Your task to perform on an android device: Go to notification settings Image 0: 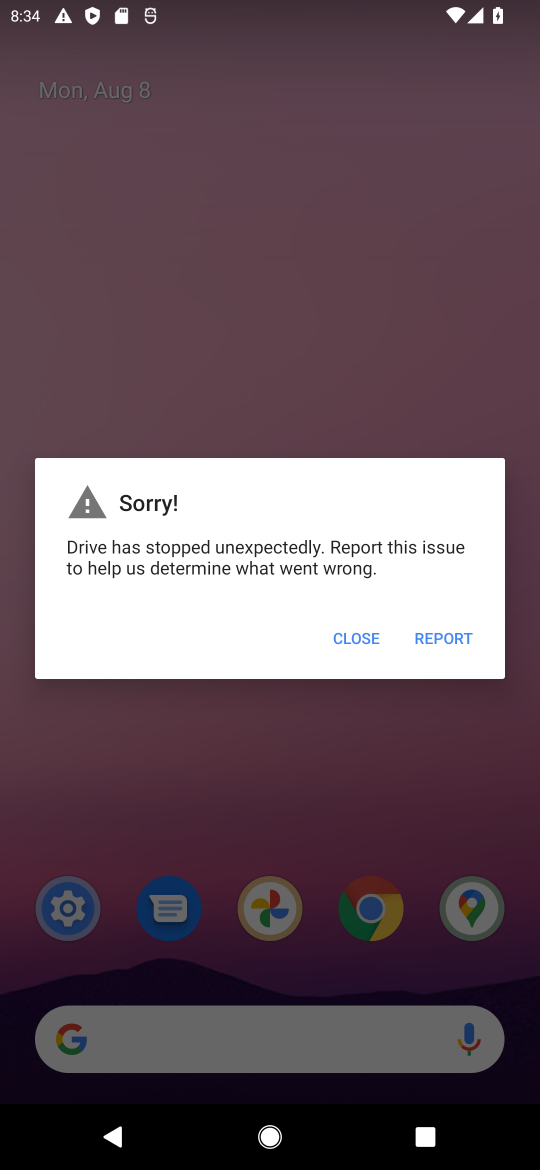
Step 0: click (344, 640)
Your task to perform on an android device: Go to notification settings Image 1: 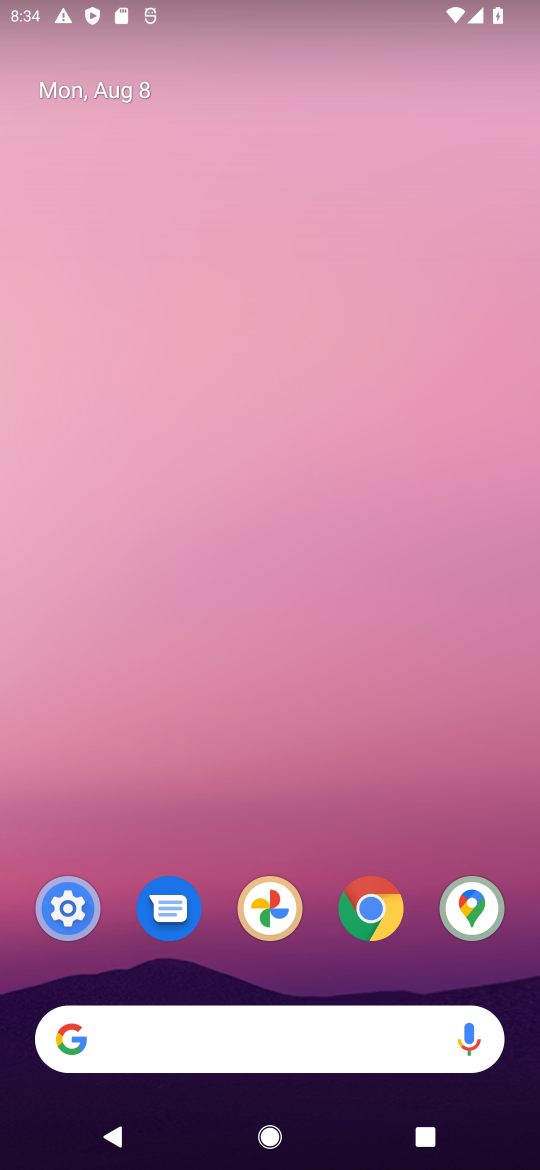
Step 1: click (85, 925)
Your task to perform on an android device: Go to notification settings Image 2: 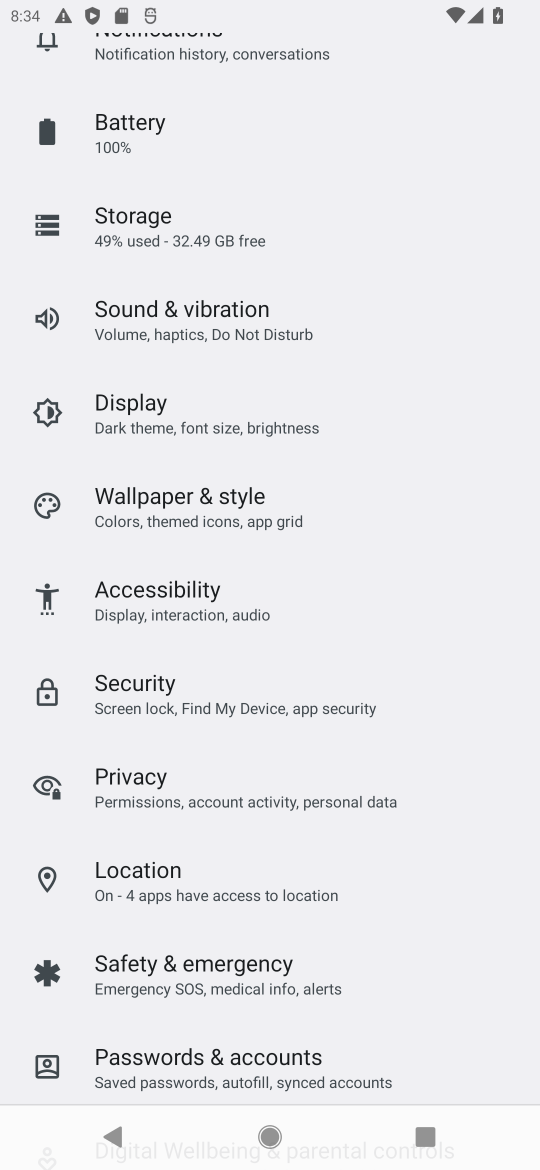
Step 2: drag from (228, 152) to (291, 638)
Your task to perform on an android device: Go to notification settings Image 3: 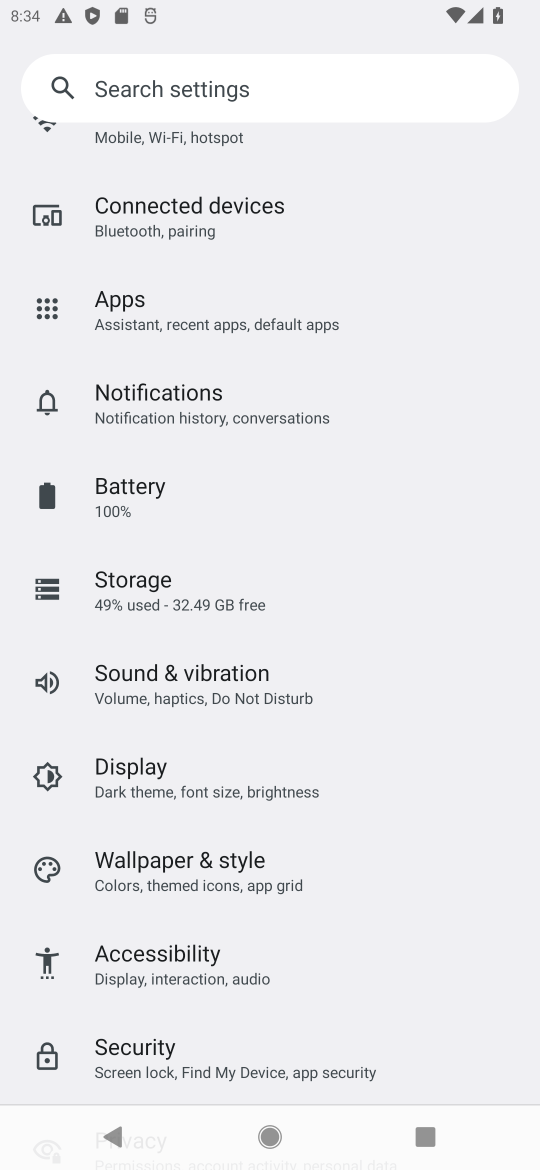
Step 3: click (162, 440)
Your task to perform on an android device: Go to notification settings Image 4: 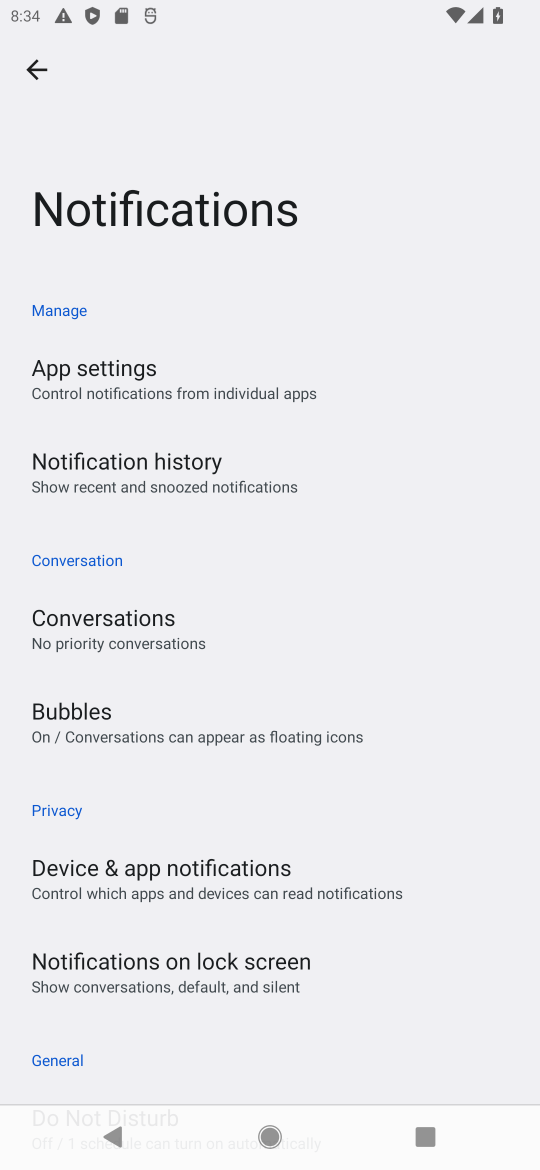
Step 4: task complete